Your task to perform on an android device: Open Google Maps and go to "Timeline" Image 0: 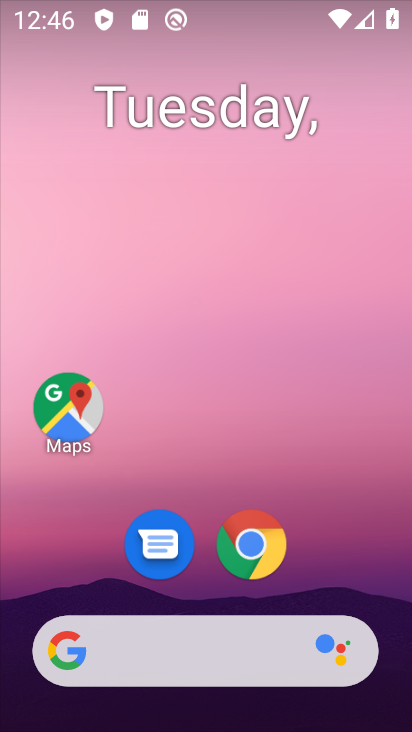
Step 0: click (80, 428)
Your task to perform on an android device: Open Google Maps and go to "Timeline" Image 1: 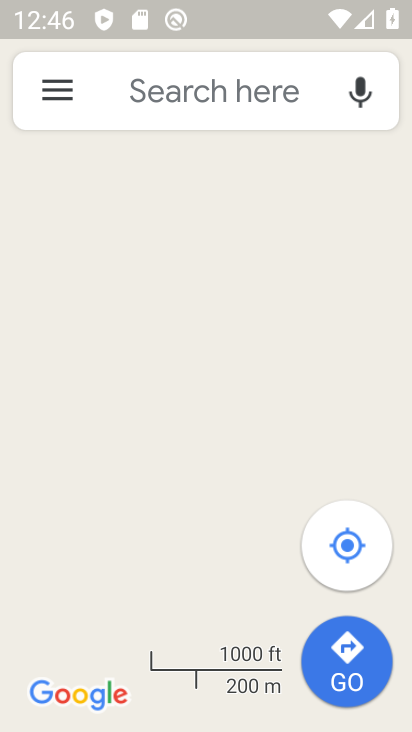
Step 1: click (67, 89)
Your task to perform on an android device: Open Google Maps and go to "Timeline" Image 2: 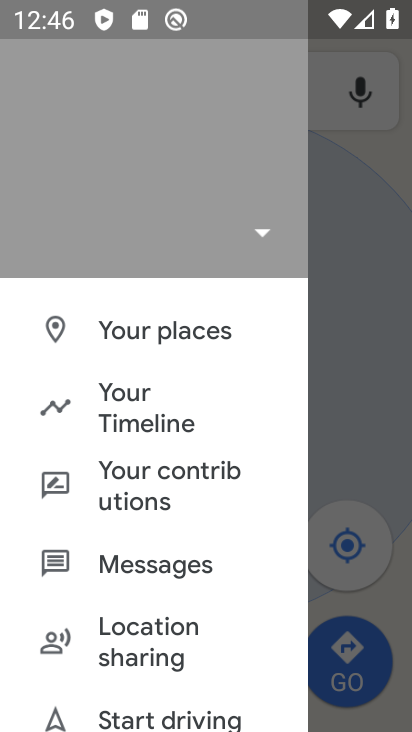
Step 2: click (148, 416)
Your task to perform on an android device: Open Google Maps and go to "Timeline" Image 3: 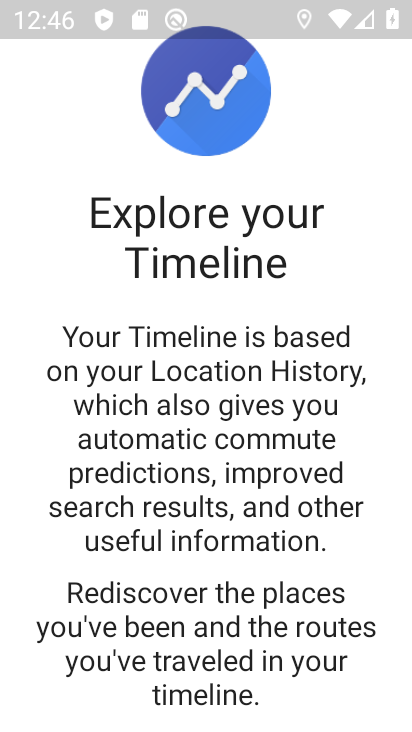
Step 3: drag from (148, 518) to (229, 116)
Your task to perform on an android device: Open Google Maps and go to "Timeline" Image 4: 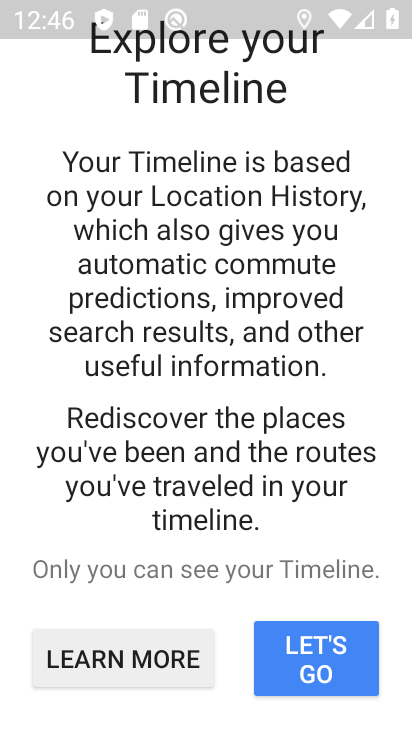
Step 4: click (331, 642)
Your task to perform on an android device: Open Google Maps and go to "Timeline" Image 5: 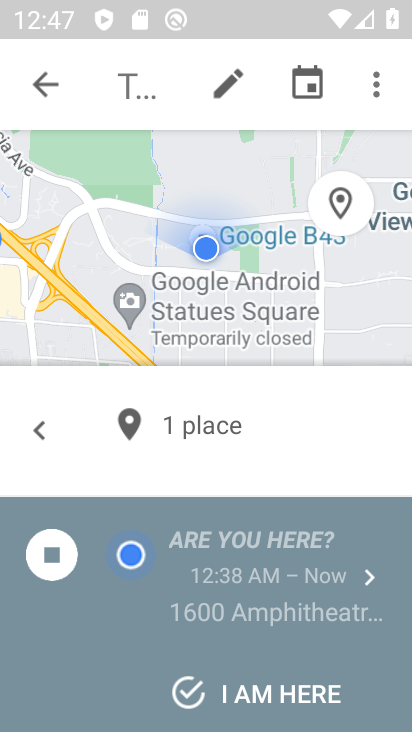
Step 5: task complete